Your task to perform on an android device: What's the weather? Image 0: 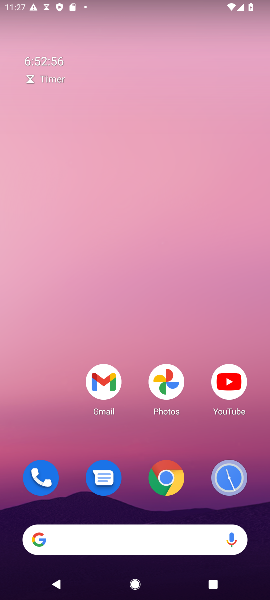
Step 0: drag from (195, 355) to (138, 5)
Your task to perform on an android device: What's the weather? Image 1: 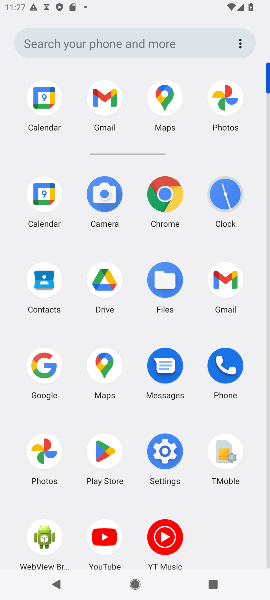
Step 1: click (167, 195)
Your task to perform on an android device: What's the weather? Image 2: 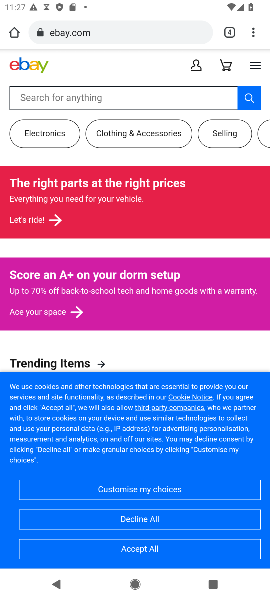
Step 2: click (94, 34)
Your task to perform on an android device: What's the weather? Image 3: 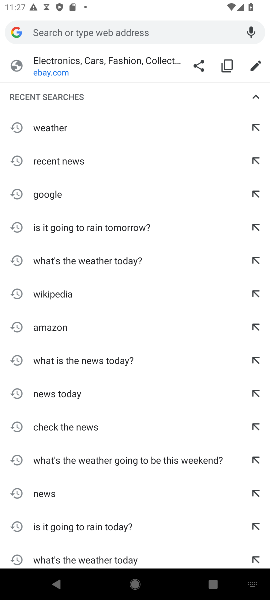
Step 3: type "What's the weather?"
Your task to perform on an android device: What's the weather? Image 4: 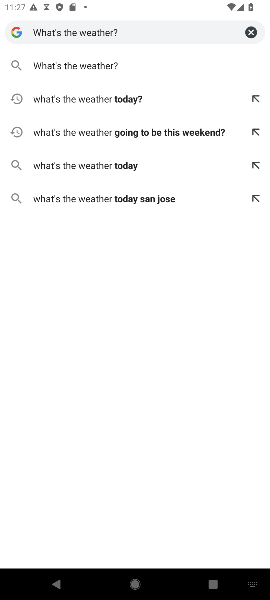
Step 4: click (65, 58)
Your task to perform on an android device: What's the weather? Image 5: 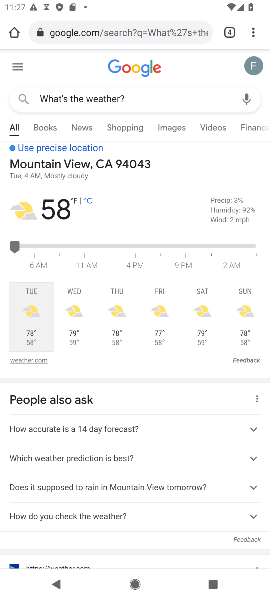
Step 5: task complete